Your task to perform on an android device: turn on priority inbox in the gmail app Image 0: 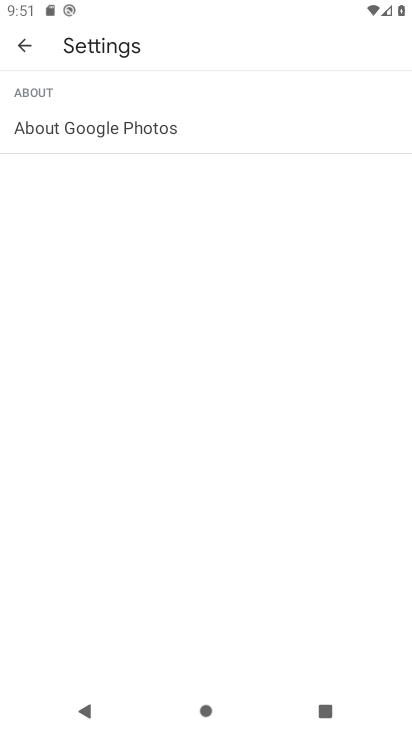
Step 0: press home button
Your task to perform on an android device: turn on priority inbox in the gmail app Image 1: 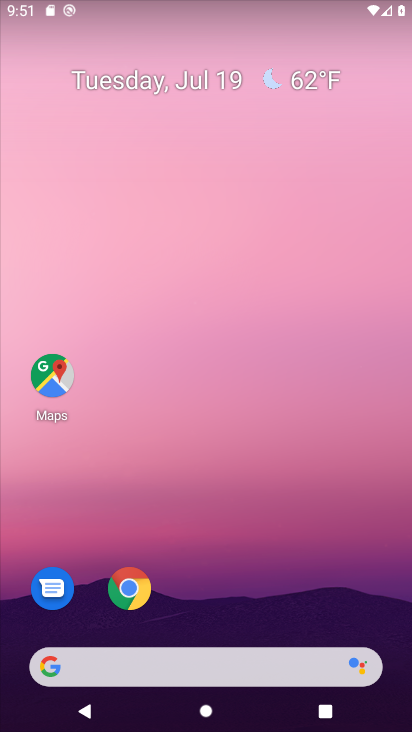
Step 1: drag from (194, 520) to (198, 191)
Your task to perform on an android device: turn on priority inbox in the gmail app Image 2: 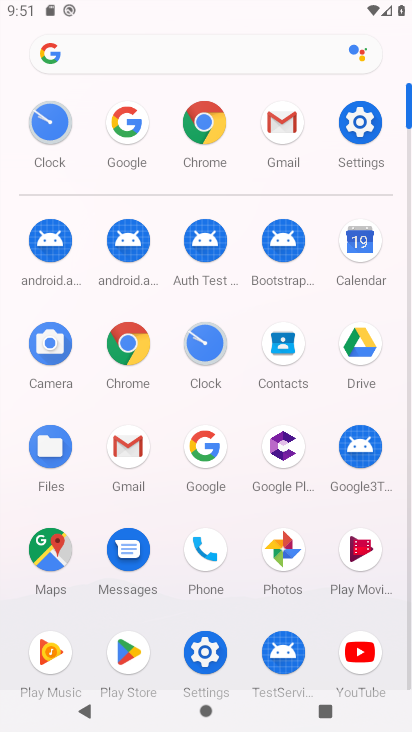
Step 2: click (283, 124)
Your task to perform on an android device: turn on priority inbox in the gmail app Image 3: 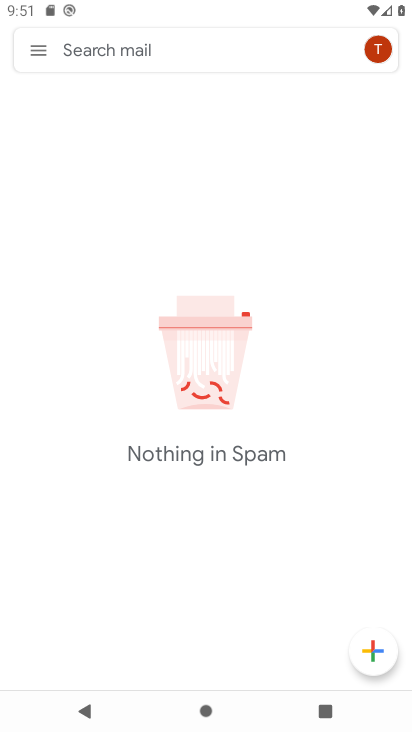
Step 3: click (43, 49)
Your task to perform on an android device: turn on priority inbox in the gmail app Image 4: 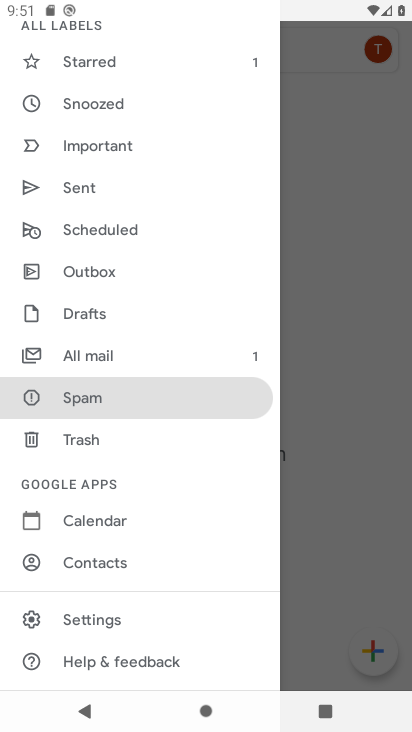
Step 4: click (83, 618)
Your task to perform on an android device: turn on priority inbox in the gmail app Image 5: 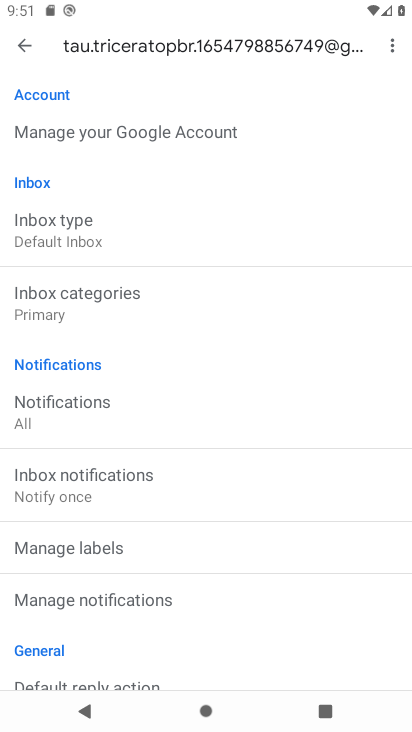
Step 5: click (61, 220)
Your task to perform on an android device: turn on priority inbox in the gmail app Image 6: 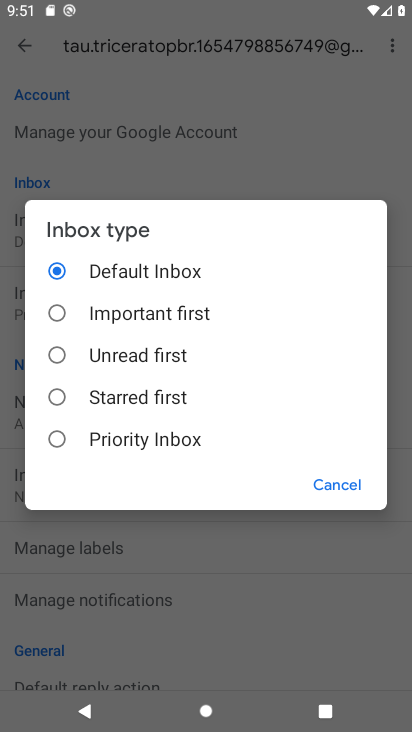
Step 6: click (52, 442)
Your task to perform on an android device: turn on priority inbox in the gmail app Image 7: 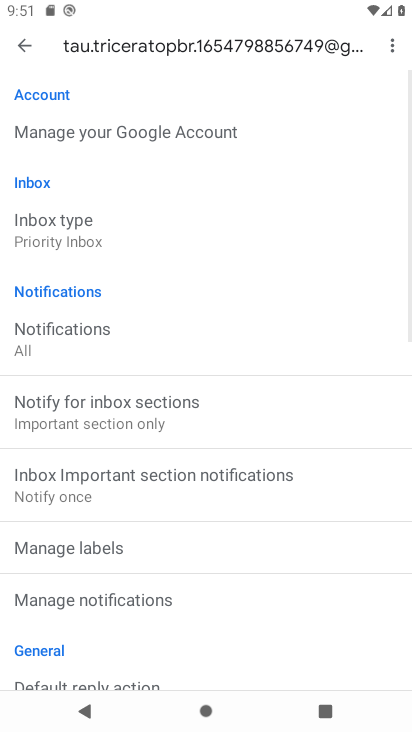
Step 7: task complete